Your task to perform on an android device: remove spam from my inbox in the gmail app Image 0: 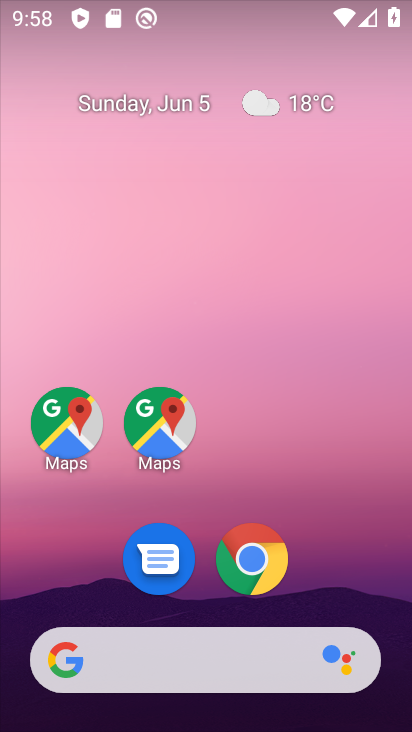
Step 0: drag from (147, 418) to (216, 80)
Your task to perform on an android device: remove spam from my inbox in the gmail app Image 1: 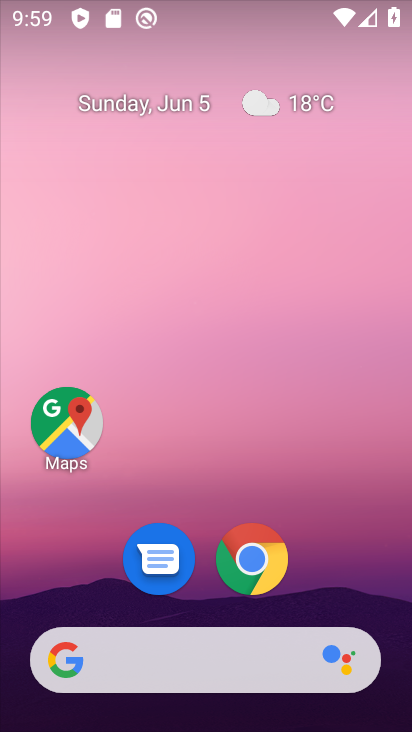
Step 1: drag from (346, 572) to (308, 40)
Your task to perform on an android device: remove spam from my inbox in the gmail app Image 2: 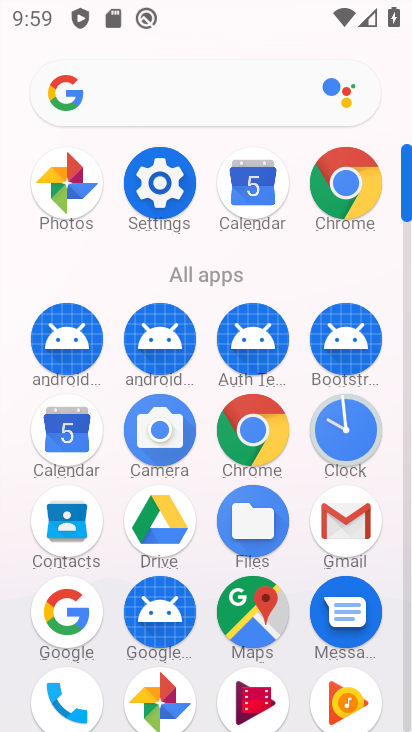
Step 2: click (332, 526)
Your task to perform on an android device: remove spam from my inbox in the gmail app Image 3: 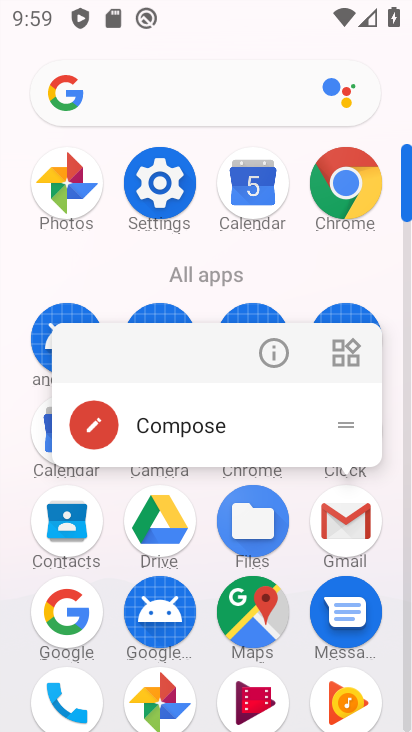
Step 3: click (334, 519)
Your task to perform on an android device: remove spam from my inbox in the gmail app Image 4: 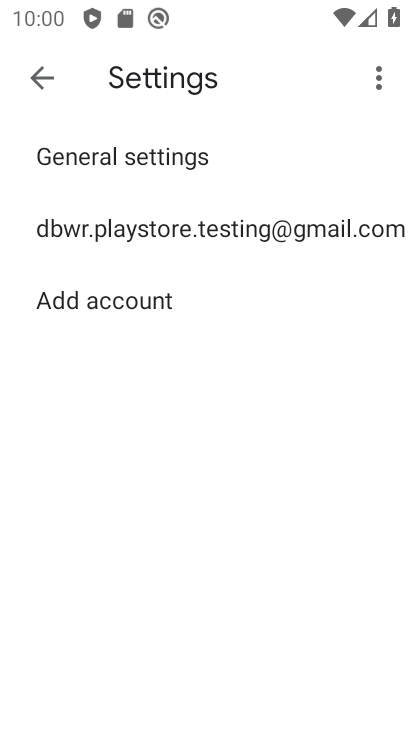
Step 4: click (36, 72)
Your task to perform on an android device: remove spam from my inbox in the gmail app Image 5: 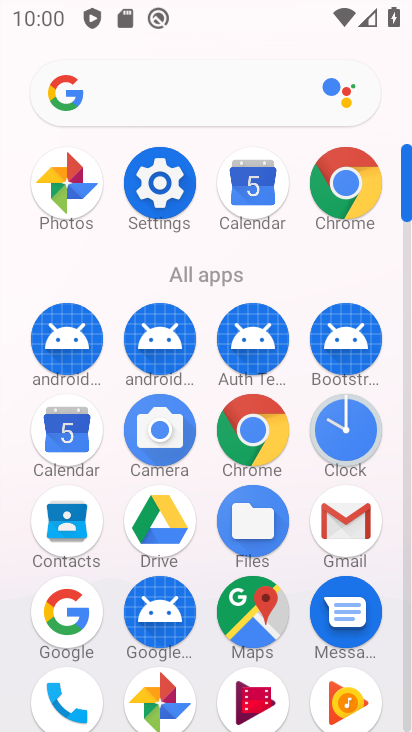
Step 5: click (337, 521)
Your task to perform on an android device: remove spam from my inbox in the gmail app Image 6: 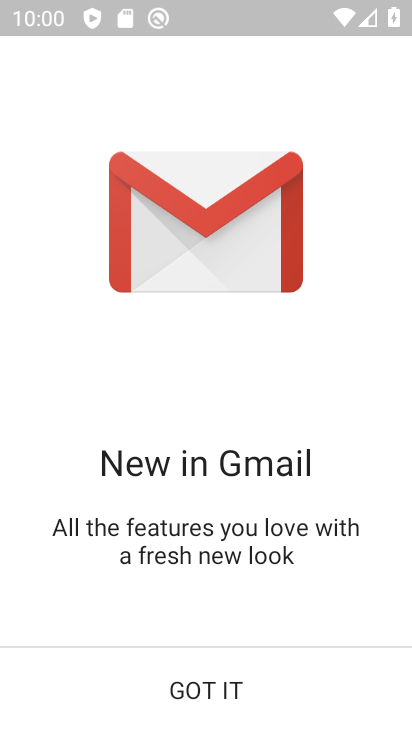
Step 6: click (226, 681)
Your task to perform on an android device: remove spam from my inbox in the gmail app Image 7: 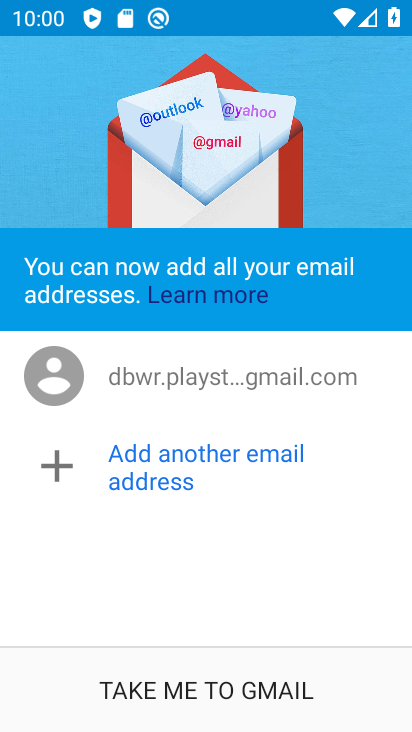
Step 7: click (226, 681)
Your task to perform on an android device: remove spam from my inbox in the gmail app Image 8: 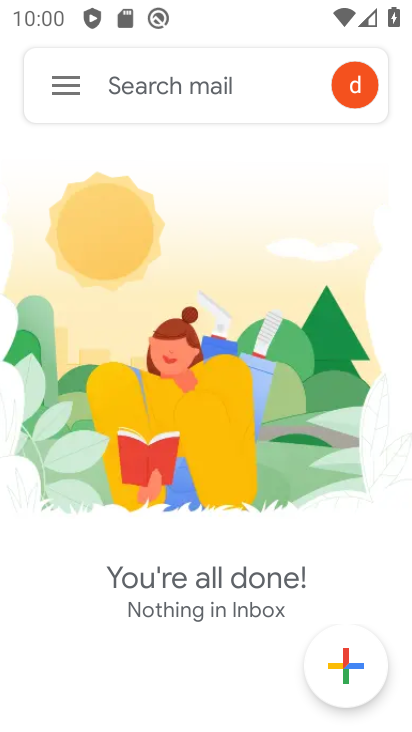
Step 8: click (59, 83)
Your task to perform on an android device: remove spam from my inbox in the gmail app Image 9: 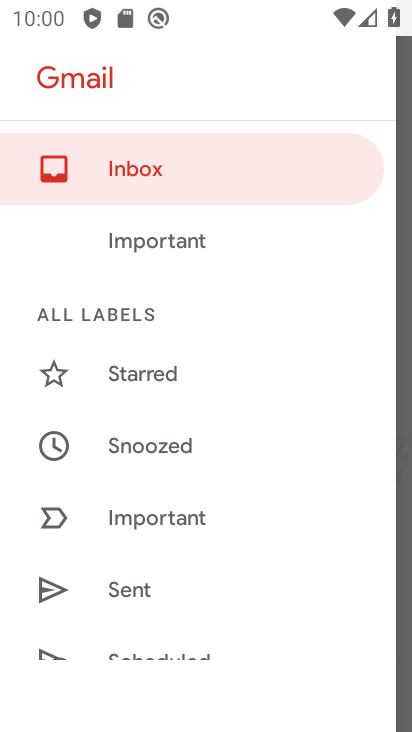
Step 9: drag from (218, 587) to (220, 206)
Your task to perform on an android device: remove spam from my inbox in the gmail app Image 10: 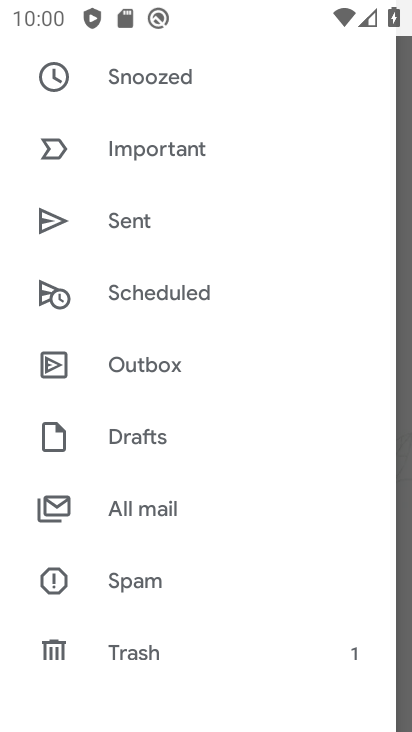
Step 10: click (119, 577)
Your task to perform on an android device: remove spam from my inbox in the gmail app Image 11: 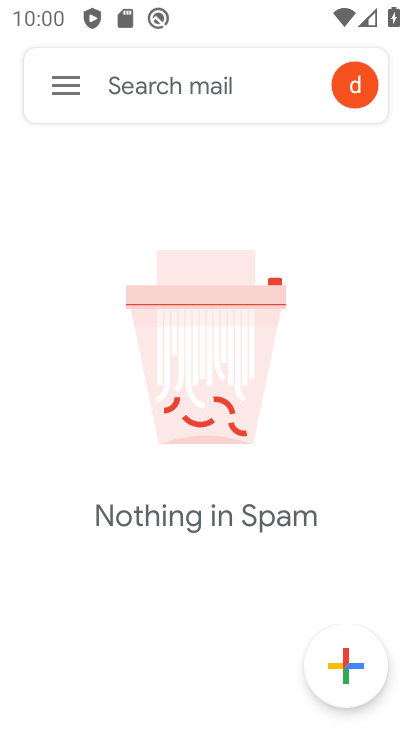
Step 11: task complete